Your task to perform on an android device: open chrome and create a bookmark for the current page Image 0: 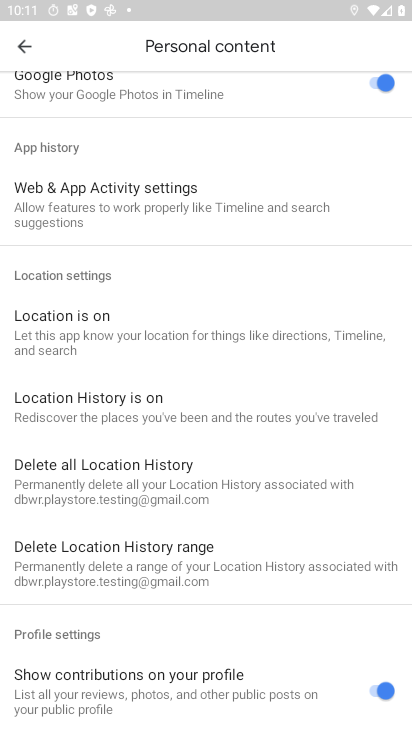
Step 0: press home button
Your task to perform on an android device: open chrome and create a bookmark for the current page Image 1: 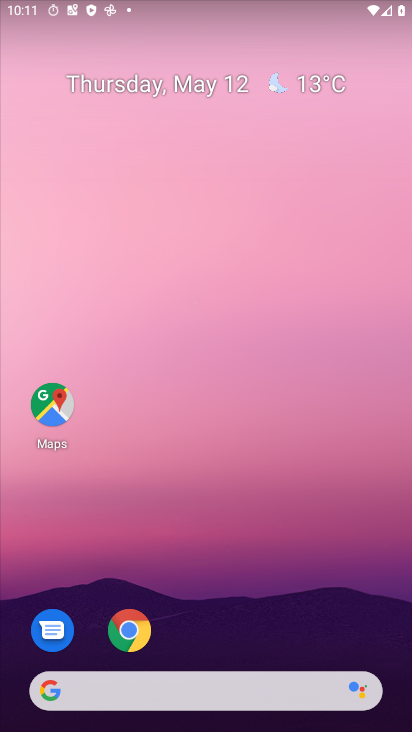
Step 1: click (131, 619)
Your task to perform on an android device: open chrome and create a bookmark for the current page Image 2: 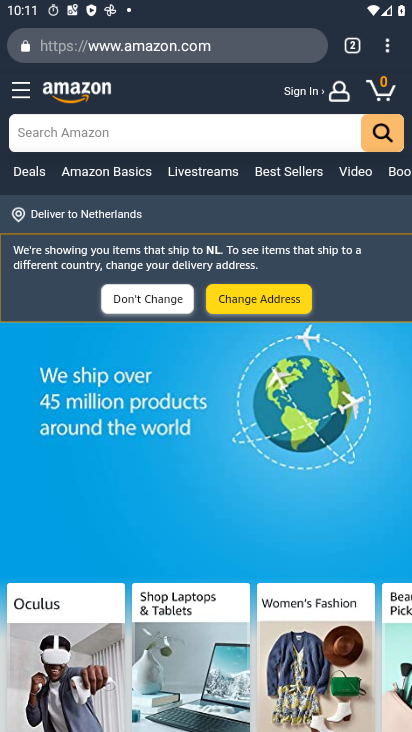
Step 2: task complete